Your task to perform on an android device: turn off priority inbox in the gmail app Image 0: 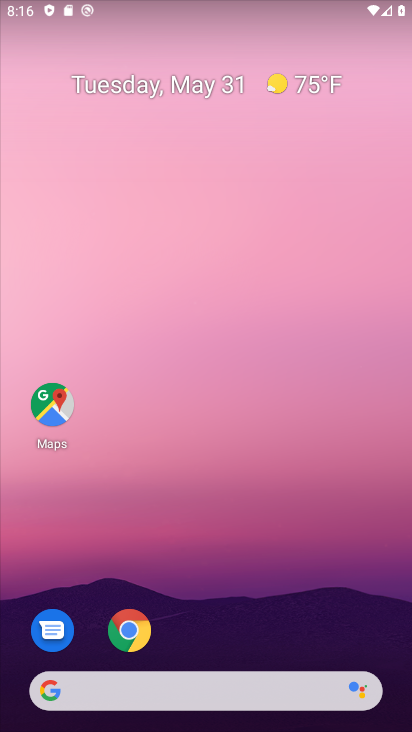
Step 0: drag from (261, 639) to (341, 86)
Your task to perform on an android device: turn off priority inbox in the gmail app Image 1: 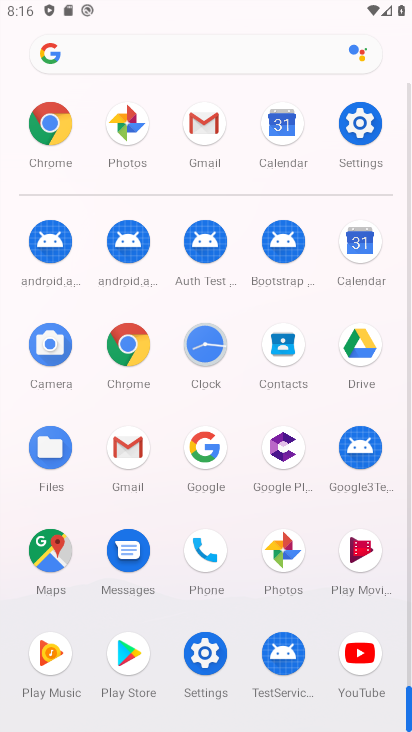
Step 1: click (126, 449)
Your task to perform on an android device: turn off priority inbox in the gmail app Image 2: 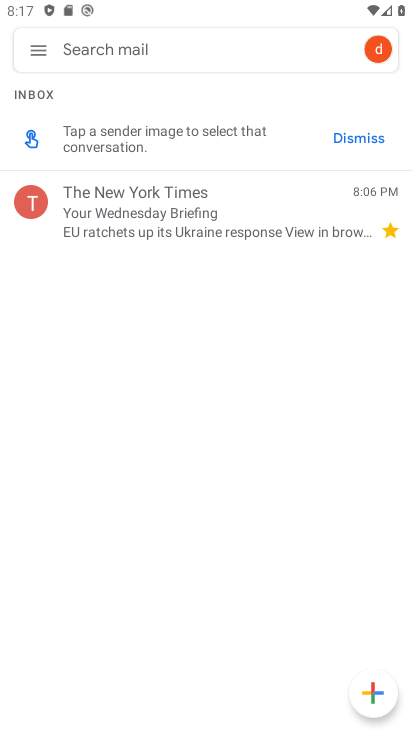
Step 2: click (45, 55)
Your task to perform on an android device: turn off priority inbox in the gmail app Image 3: 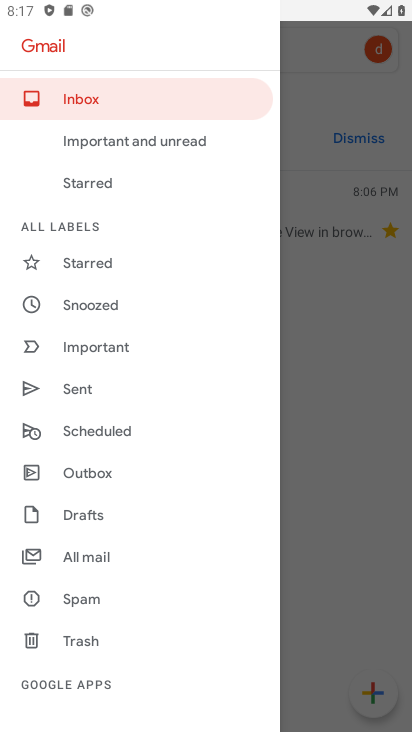
Step 3: drag from (103, 619) to (179, 162)
Your task to perform on an android device: turn off priority inbox in the gmail app Image 4: 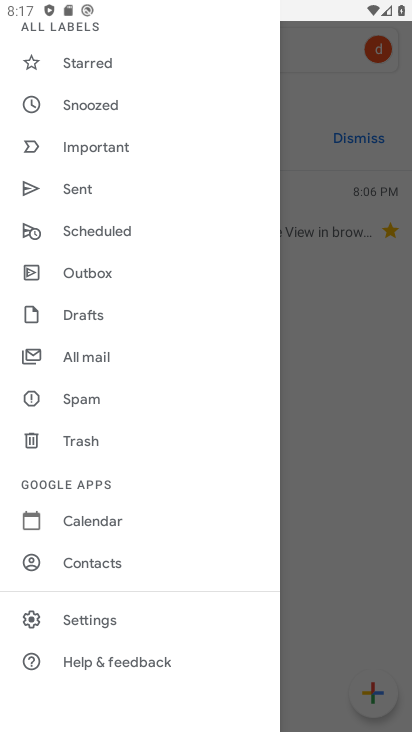
Step 4: click (98, 624)
Your task to perform on an android device: turn off priority inbox in the gmail app Image 5: 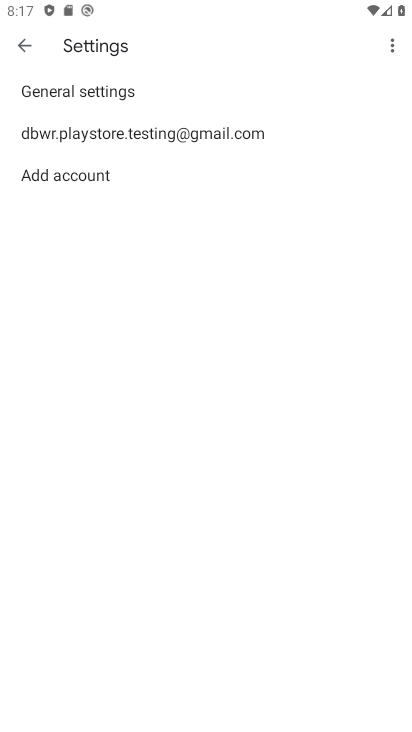
Step 5: click (126, 133)
Your task to perform on an android device: turn off priority inbox in the gmail app Image 6: 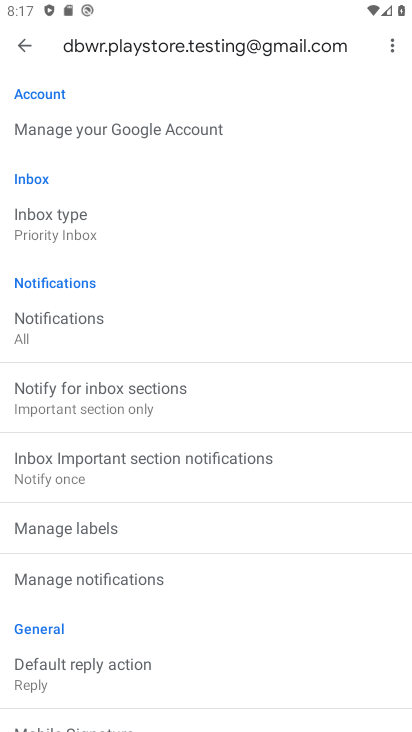
Step 6: click (80, 227)
Your task to perform on an android device: turn off priority inbox in the gmail app Image 7: 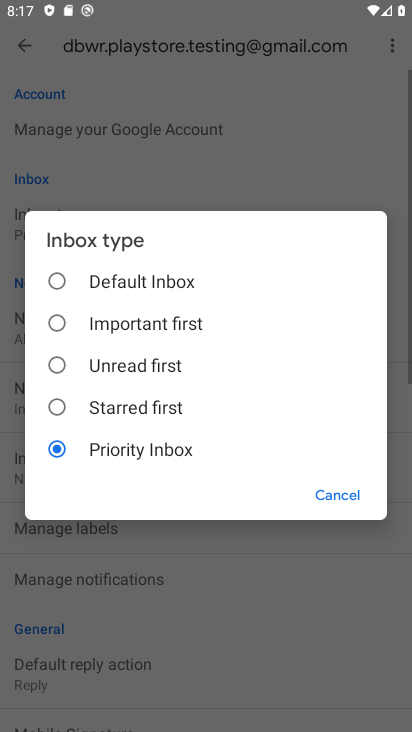
Step 7: click (123, 282)
Your task to perform on an android device: turn off priority inbox in the gmail app Image 8: 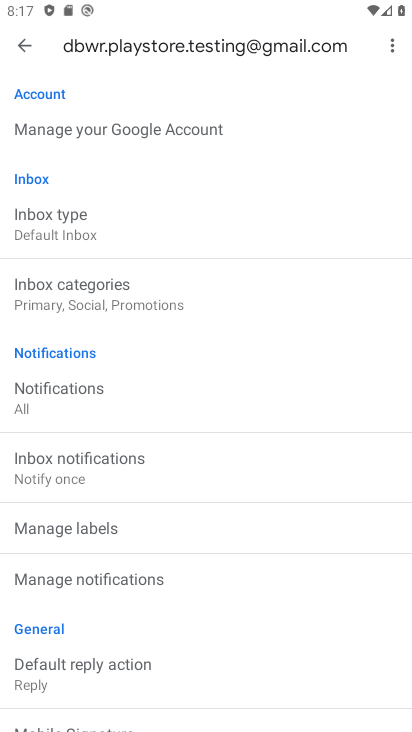
Step 8: task complete